Your task to perform on an android device: show emergency info Image 0: 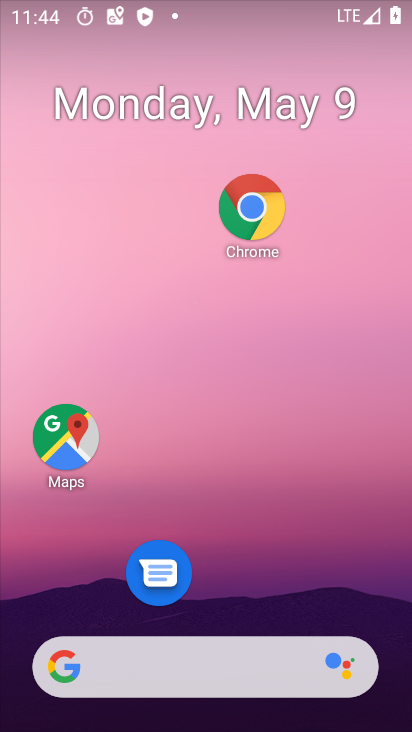
Step 0: drag from (226, 560) to (224, 241)
Your task to perform on an android device: show emergency info Image 1: 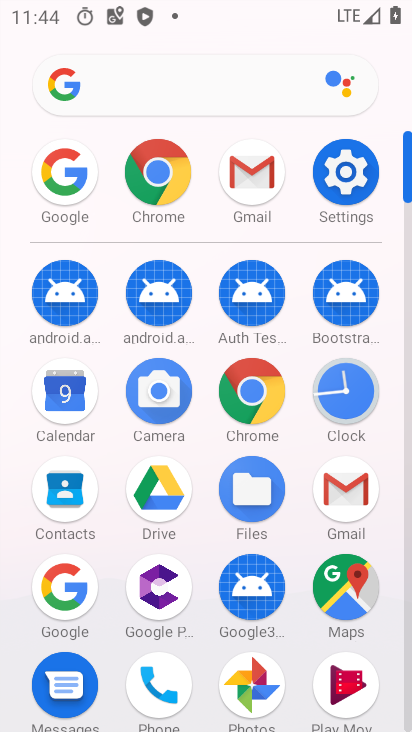
Step 1: click (337, 182)
Your task to perform on an android device: show emergency info Image 2: 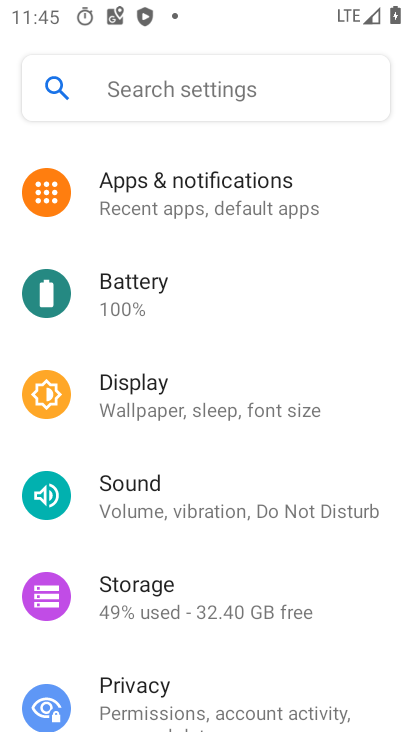
Step 2: drag from (192, 601) to (111, 412)
Your task to perform on an android device: show emergency info Image 3: 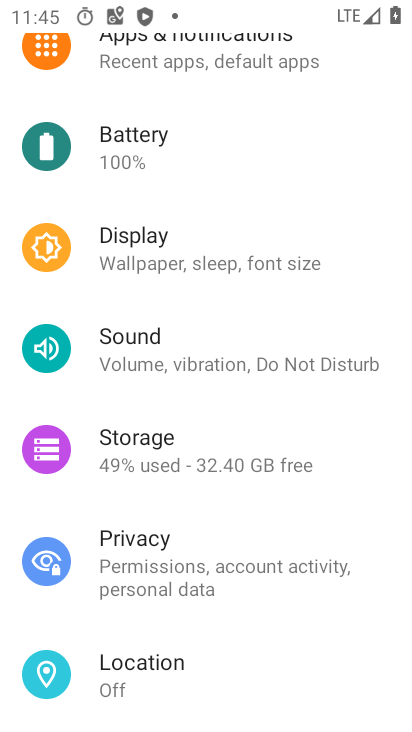
Step 3: drag from (244, 602) to (239, 186)
Your task to perform on an android device: show emergency info Image 4: 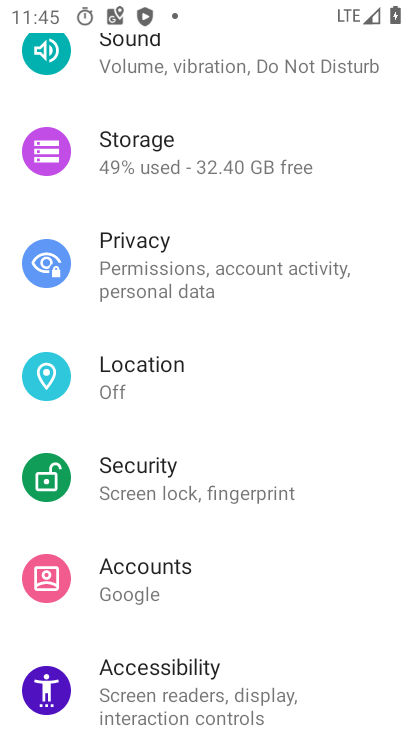
Step 4: drag from (268, 630) to (252, 234)
Your task to perform on an android device: show emergency info Image 5: 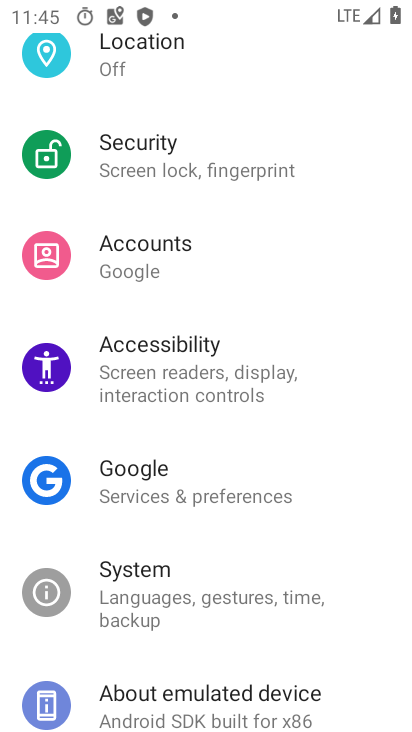
Step 5: drag from (266, 691) to (232, 303)
Your task to perform on an android device: show emergency info Image 6: 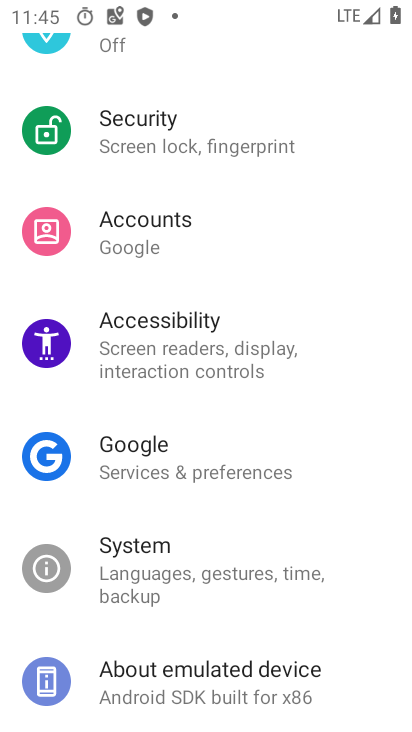
Step 6: click (251, 668)
Your task to perform on an android device: show emergency info Image 7: 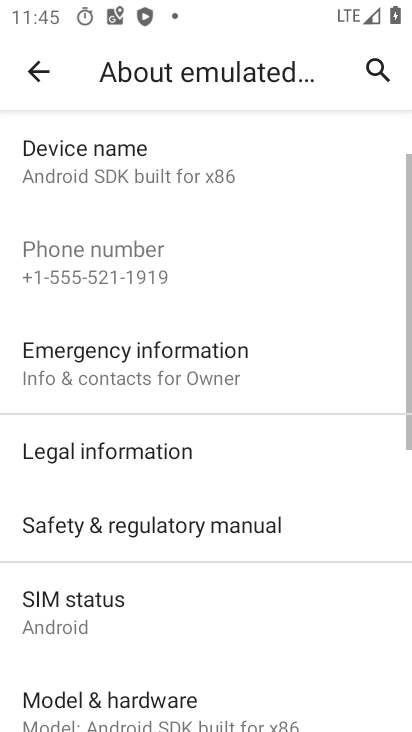
Step 7: click (230, 367)
Your task to perform on an android device: show emergency info Image 8: 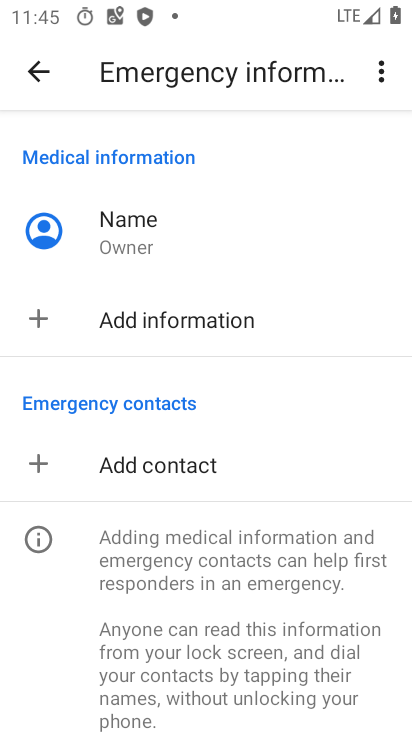
Step 8: task complete